Your task to perform on an android device: set default search engine in the chrome app Image 0: 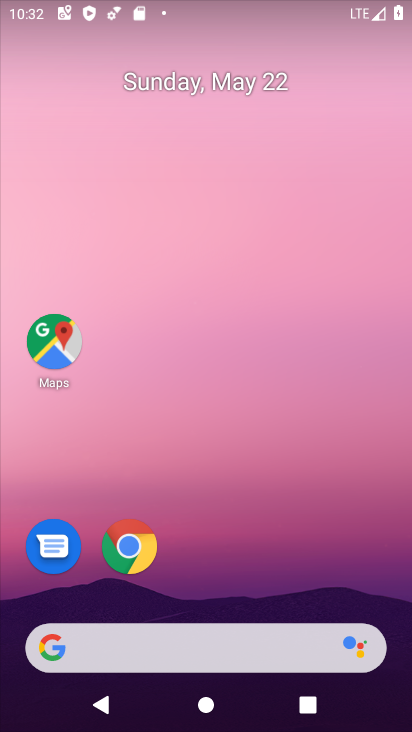
Step 0: drag from (218, 579) to (175, 36)
Your task to perform on an android device: set default search engine in the chrome app Image 1: 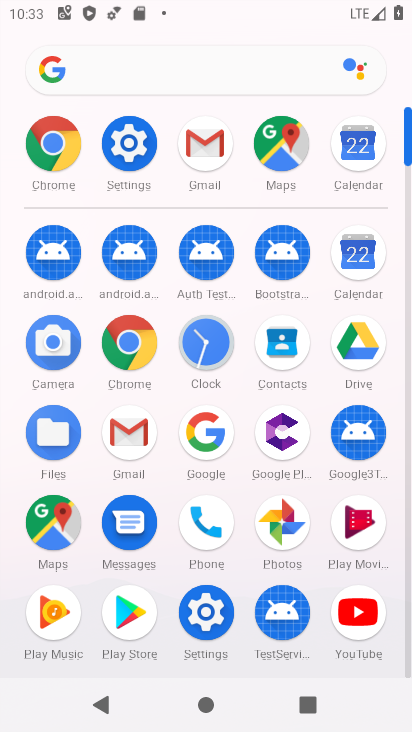
Step 1: click (124, 341)
Your task to perform on an android device: set default search engine in the chrome app Image 2: 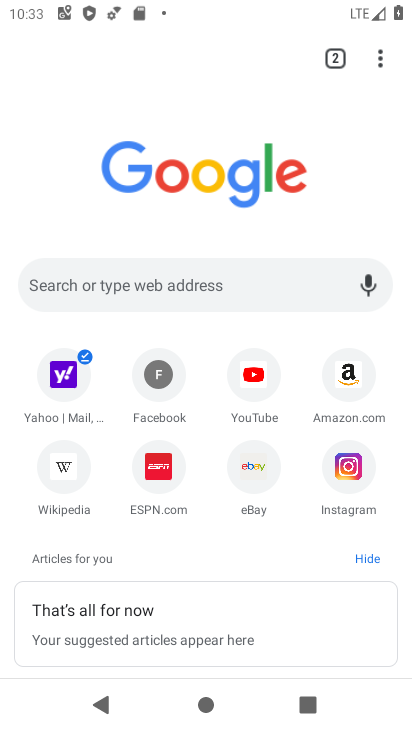
Step 2: click (380, 59)
Your task to perform on an android device: set default search engine in the chrome app Image 3: 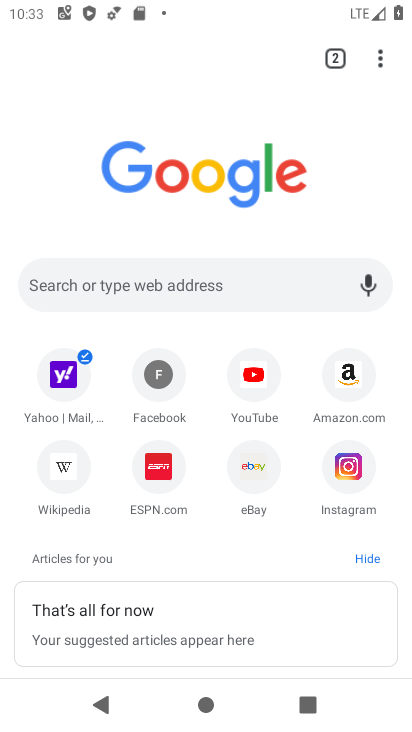
Step 3: click (387, 64)
Your task to perform on an android device: set default search engine in the chrome app Image 4: 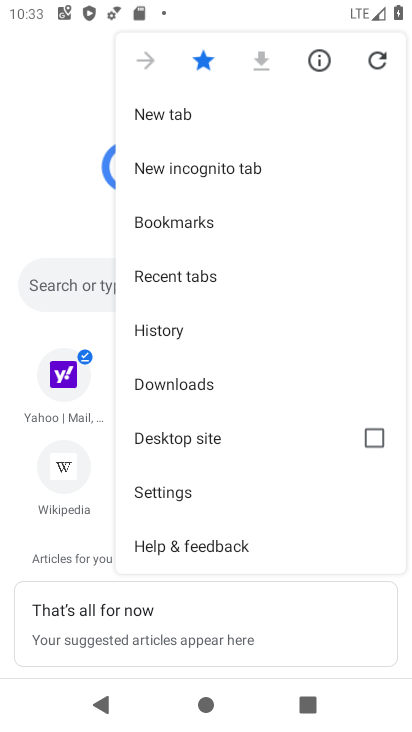
Step 4: click (164, 497)
Your task to perform on an android device: set default search engine in the chrome app Image 5: 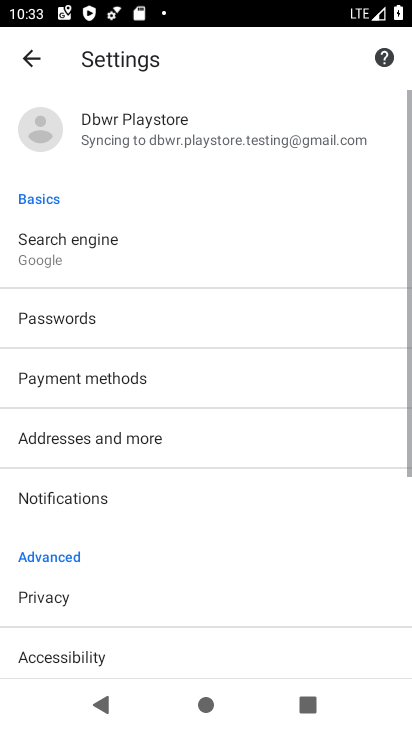
Step 5: click (68, 257)
Your task to perform on an android device: set default search engine in the chrome app Image 6: 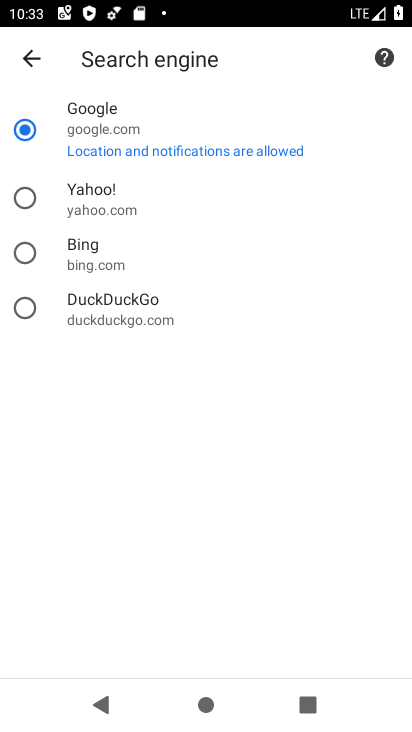
Step 6: click (101, 156)
Your task to perform on an android device: set default search engine in the chrome app Image 7: 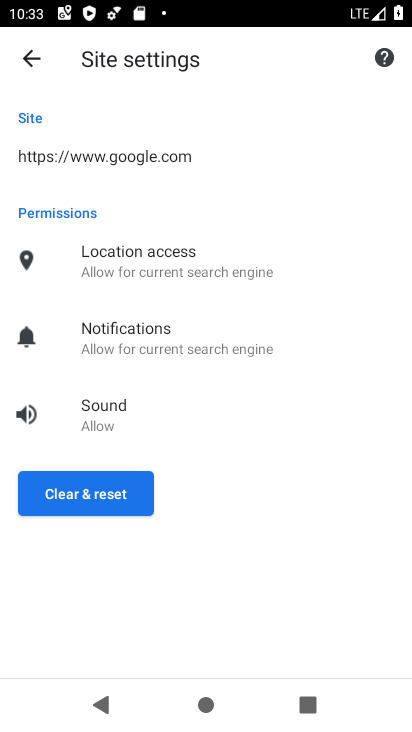
Step 7: click (71, 494)
Your task to perform on an android device: set default search engine in the chrome app Image 8: 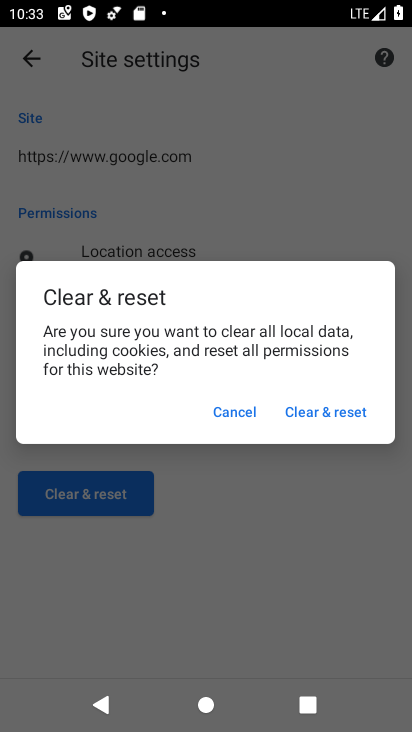
Step 8: click (320, 406)
Your task to perform on an android device: set default search engine in the chrome app Image 9: 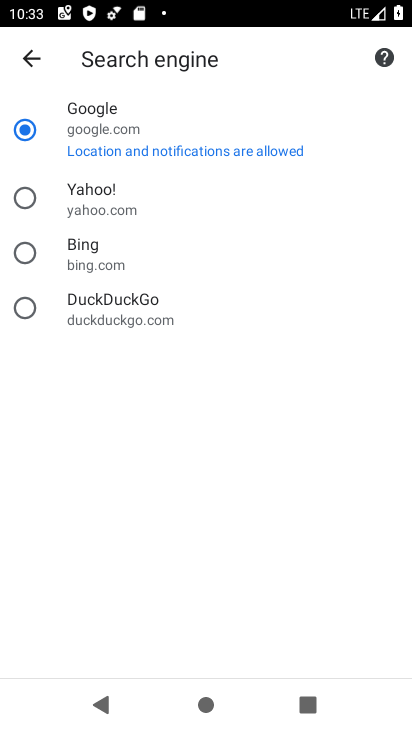
Step 9: task complete